Your task to perform on an android device: Go to Reddit.com Image 0: 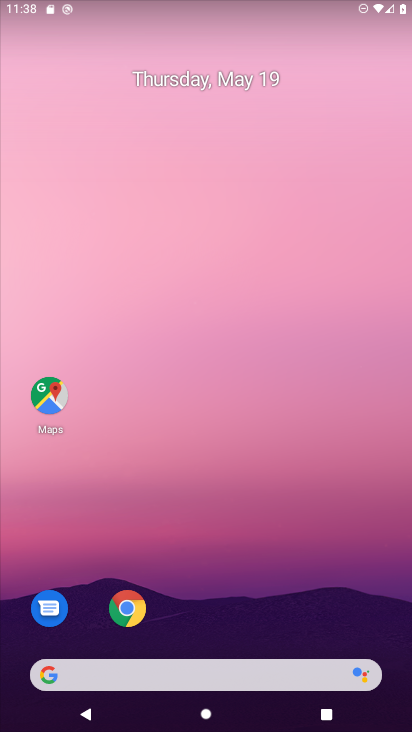
Step 0: press home button
Your task to perform on an android device: Go to Reddit.com Image 1: 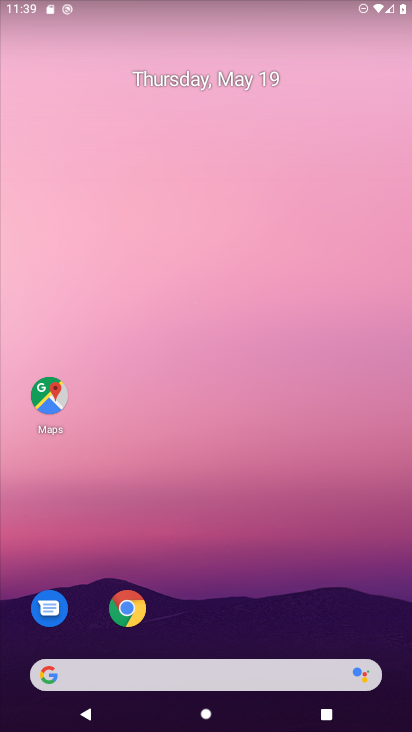
Step 1: drag from (357, 613) to (268, 10)
Your task to perform on an android device: Go to Reddit.com Image 2: 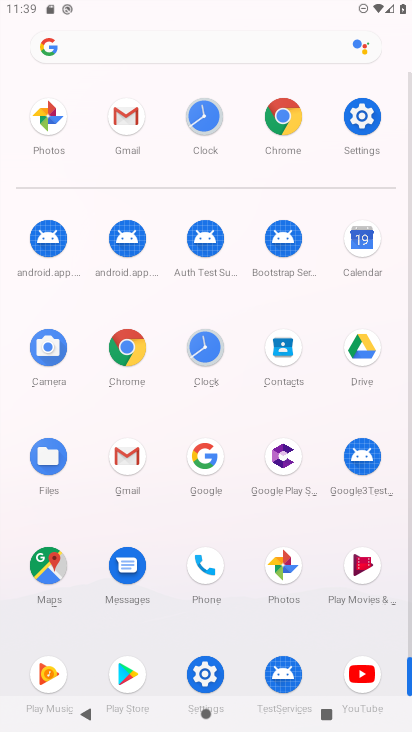
Step 2: click (295, 113)
Your task to perform on an android device: Go to Reddit.com Image 3: 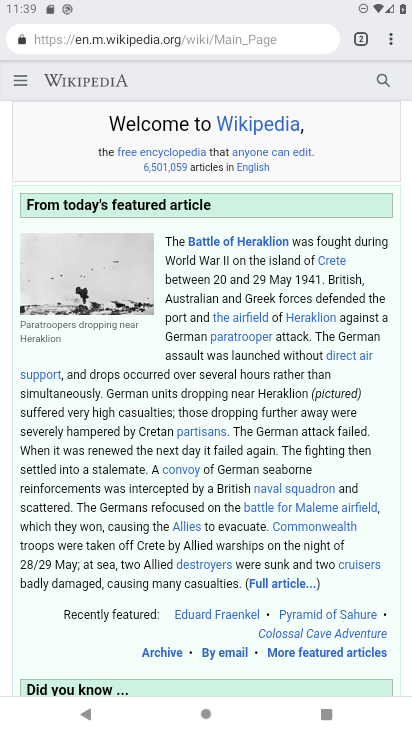
Step 3: click (316, 35)
Your task to perform on an android device: Go to Reddit.com Image 4: 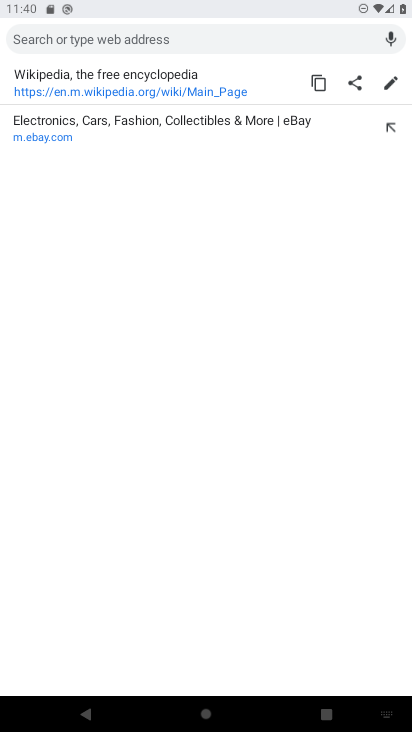
Step 4: type " Reddit.com"
Your task to perform on an android device: Go to Reddit.com Image 5: 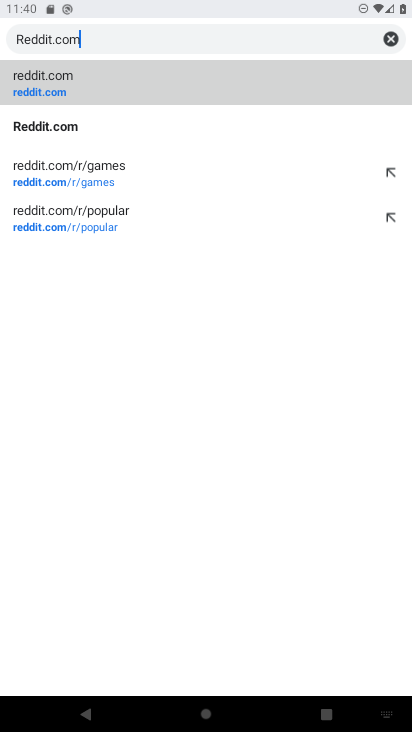
Step 5: click (39, 61)
Your task to perform on an android device: Go to Reddit.com Image 6: 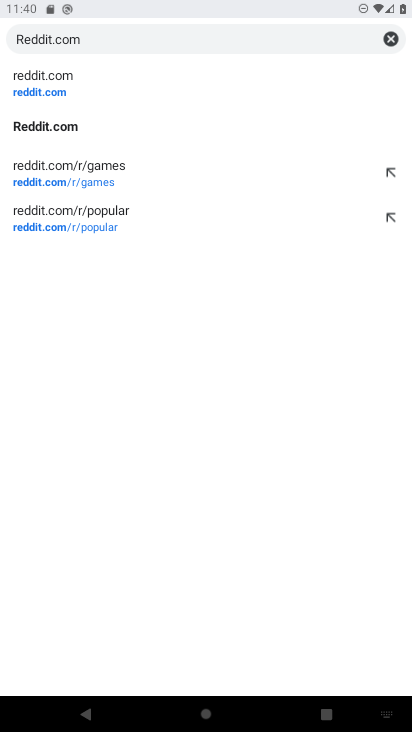
Step 6: click (117, 92)
Your task to perform on an android device: Go to Reddit.com Image 7: 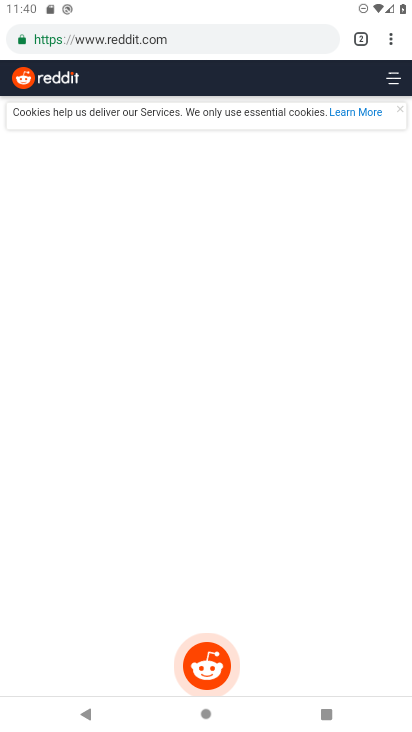
Step 7: task complete